Your task to perform on an android device: delete the emails in spam in the gmail app Image 0: 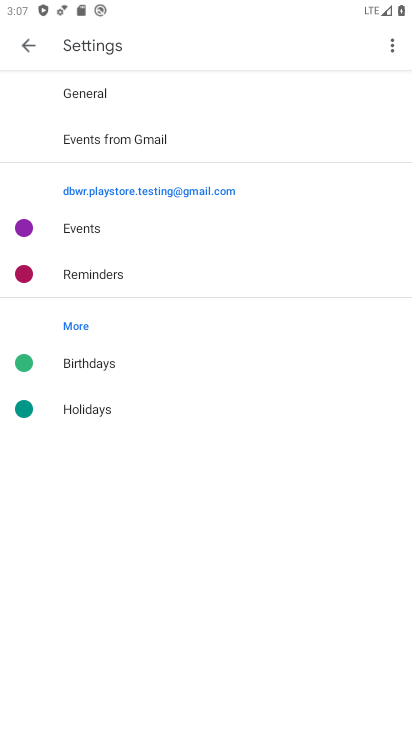
Step 0: press home button
Your task to perform on an android device: delete the emails in spam in the gmail app Image 1: 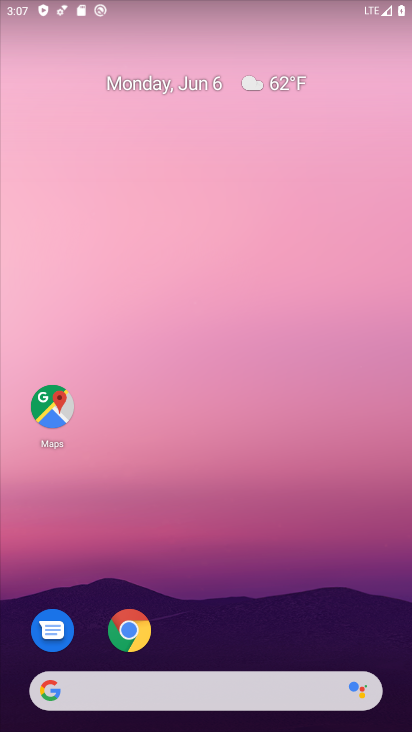
Step 1: drag from (223, 586) to (310, 90)
Your task to perform on an android device: delete the emails in spam in the gmail app Image 2: 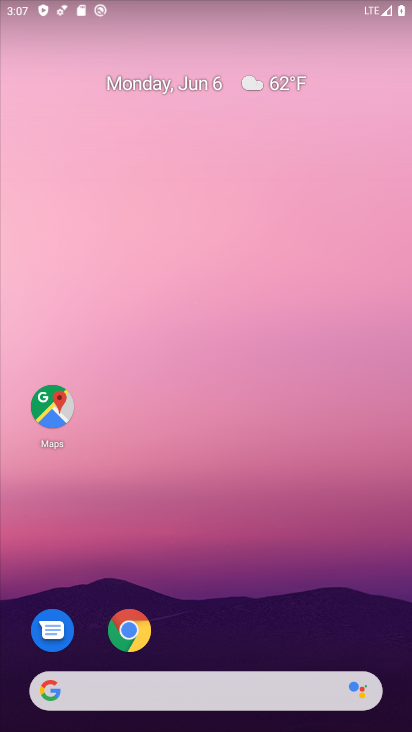
Step 2: drag from (279, 536) to (347, 117)
Your task to perform on an android device: delete the emails in spam in the gmail app Image 3: 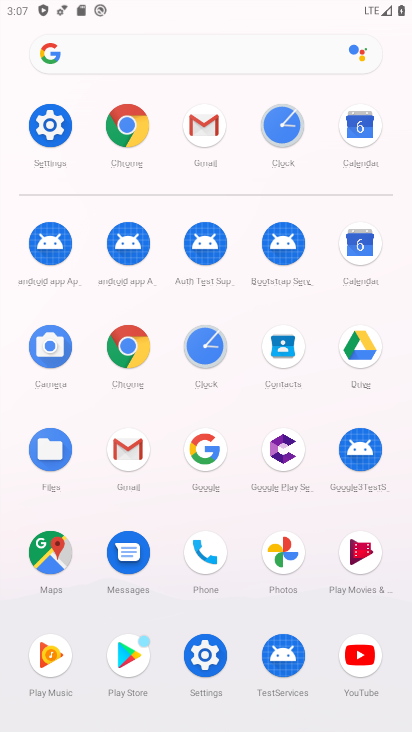
Step 3: click (186, 143)
Your task to perform on an android device: delete the emails in spam in the gmail app Image 4: 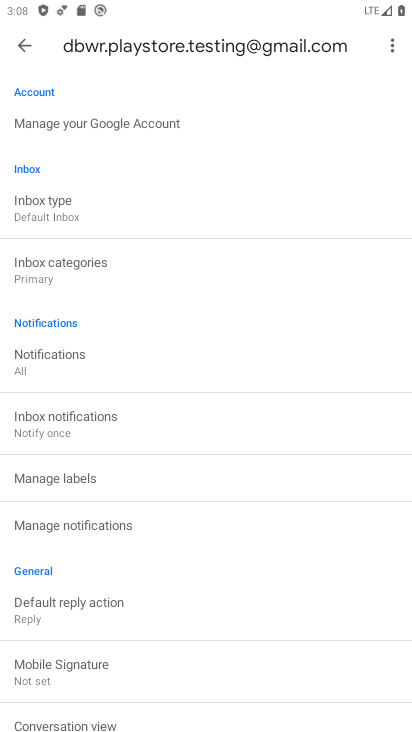
Step 4: click (12, 34)
Your task to perform on an android device: delete the emails in spam in the gmail app Image 5: 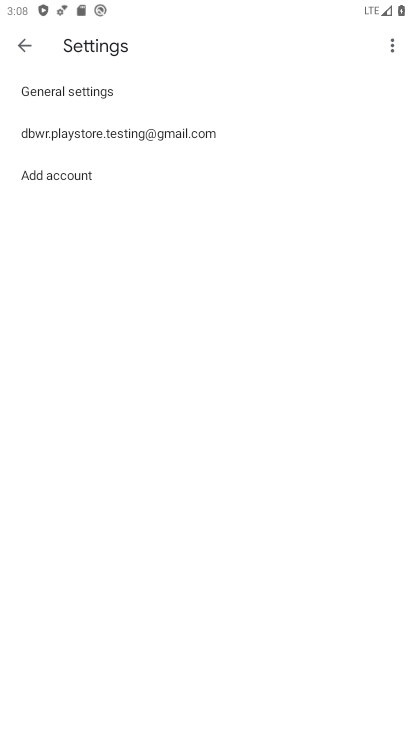
Step 5: click (36, 49)
Your task to perform on an android device: delete the emails in spam in the gmail app Image 6: 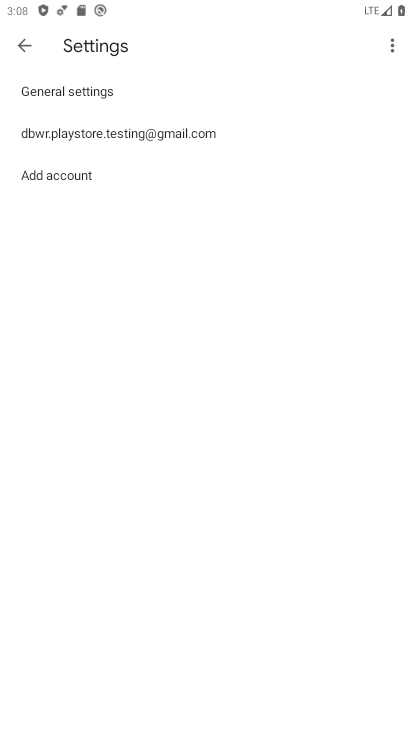
Step 6: click (32, 43)
Your task to perform on an android device: delete the emails in spam in the gmail app Image 7: 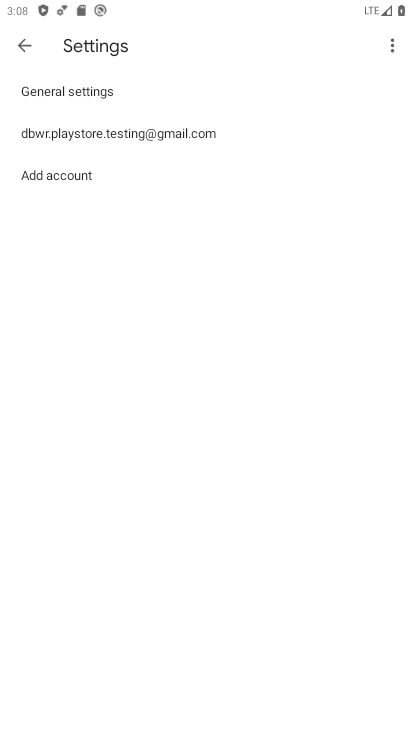
Step 7: click (32, 43)
Your task to perform on an android device: delete the emails in spam in the gmail app Image 8: 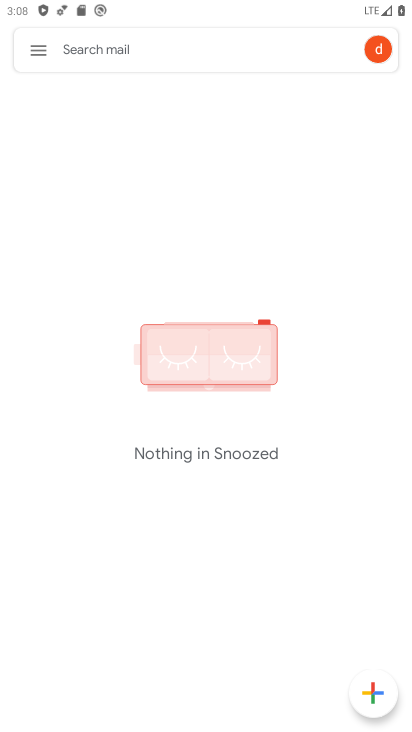
Step 8: click (32, 43)
Your task to perform on an android device: delete the emails in spam in the gmail app Image 9: 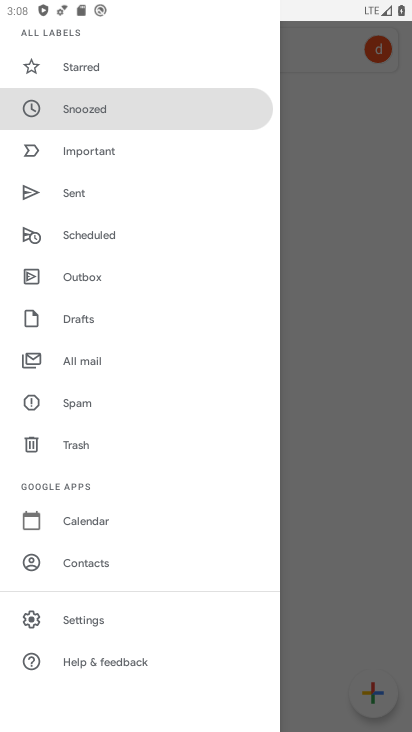
Step 9: task complete